Your task to perform on an android device: Open wifi settings Image 0: 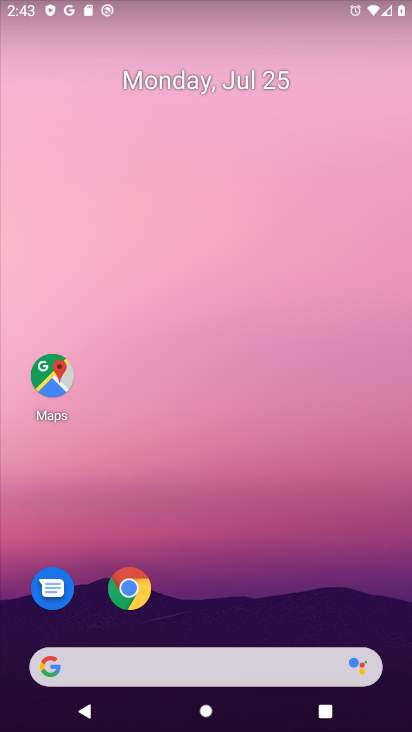
Step 0: press home button
Your task to perform on an android device: Open wifi settings Image 1: 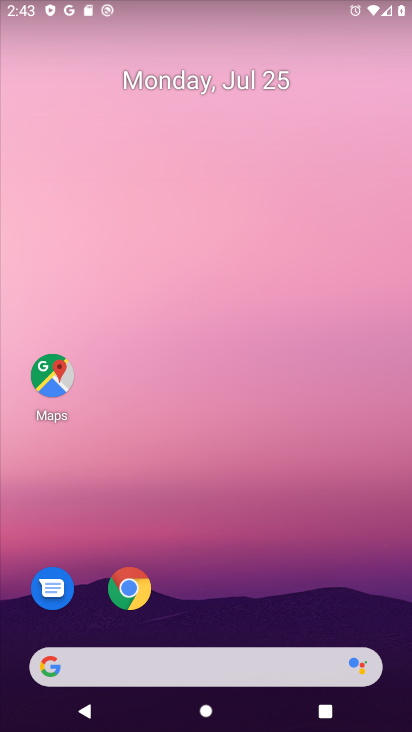
Step 1: drag from (217, 624) to (217, 14)
Your task to perform on an android device: Open wifi settings Image 2: 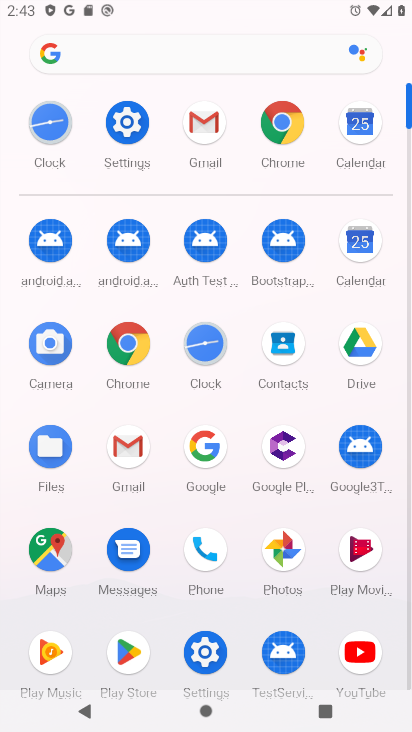
Step 2: click (125, 119)
Your task to perform on an android device: Open wifi settings Image 3: 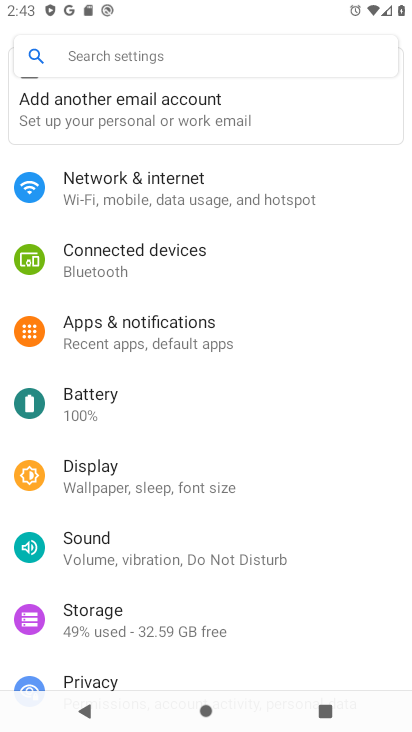
Step 3: click (190, 176)
Your task to perform on an android device: Open wifi settings Image 4: 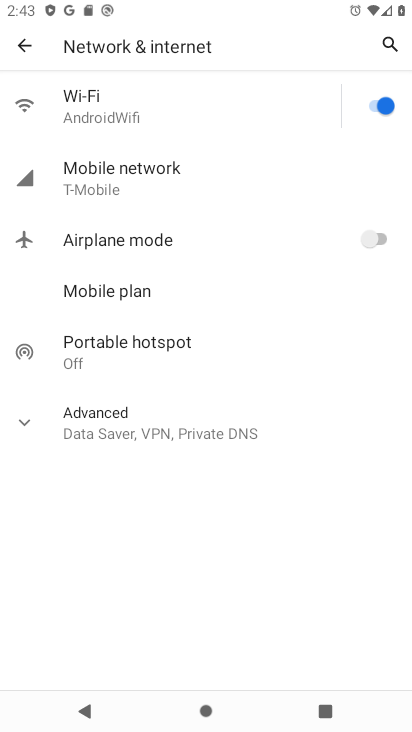
Step 4: click (204, 101)
Your task to perform on an android device: Open wifi settings Image 5: 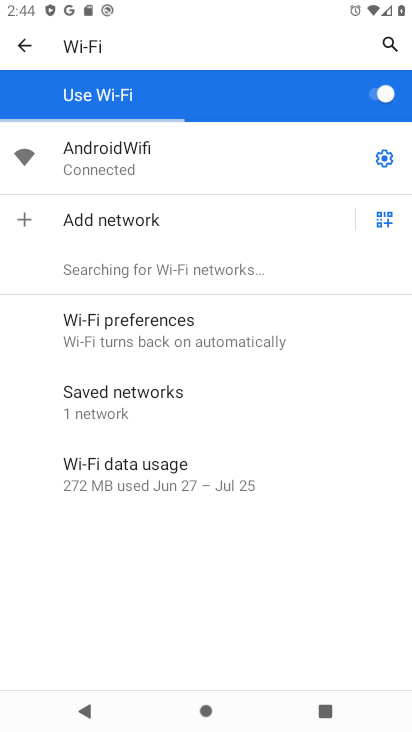
Step 5: task complete